Your task to perform on an android device: turn off priority inbox in the gmail app Image 0: 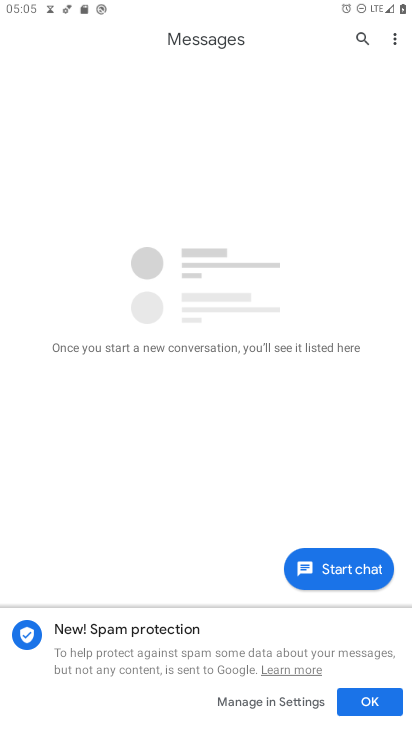
Step 0: press home button
Your task to perform on an android device: turn off priority inbox in the gmail app Image 1: 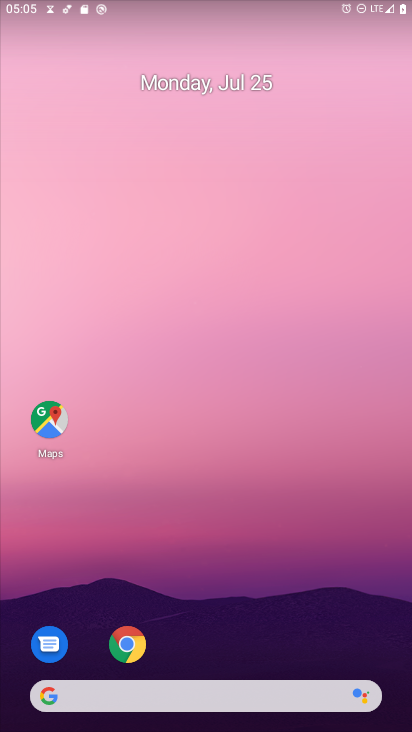
Step 1: drag from (274, 635) to (288, 15)
Your task to perform on an android device: turn off priority inbox in the gmail app Image 2: 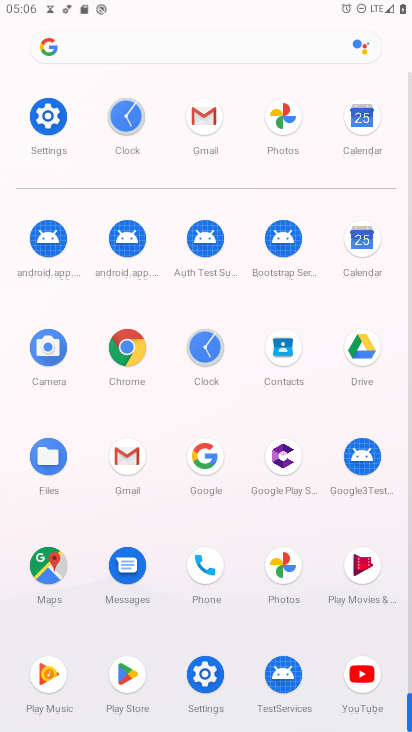
Step 2: click (200, 112)
Your task to perform on an android device: turn off priority inbox in the gmail app Image 3: 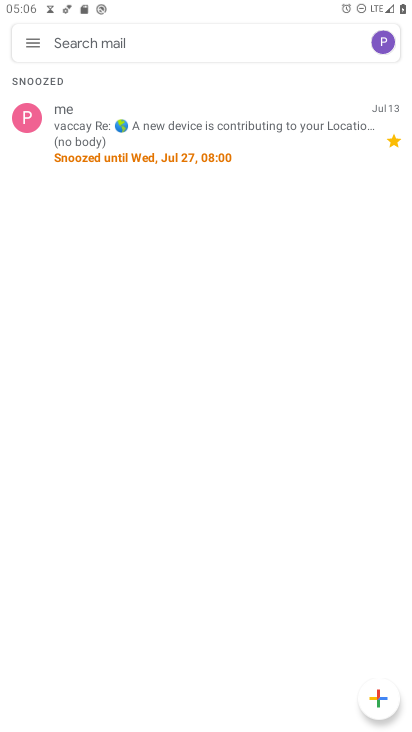
Step 3: click (29, 39)
Your task to perform on an android device: turn off priority inbox in the gmail app Image 4: 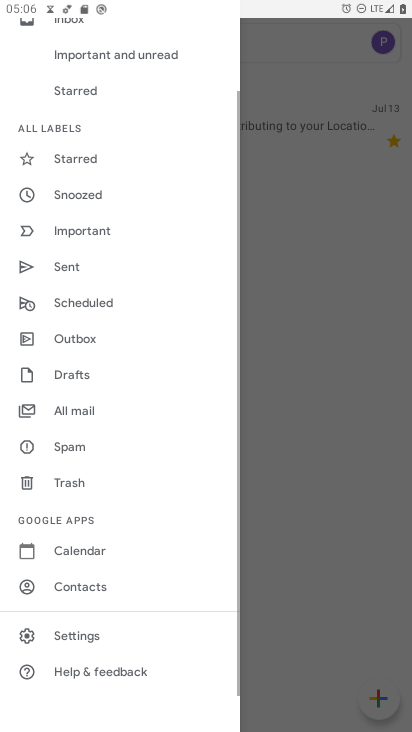
Step 4: click (42, 633)
Your task to perform on an android device: turn off priority inbox in the gmail app Image 5: 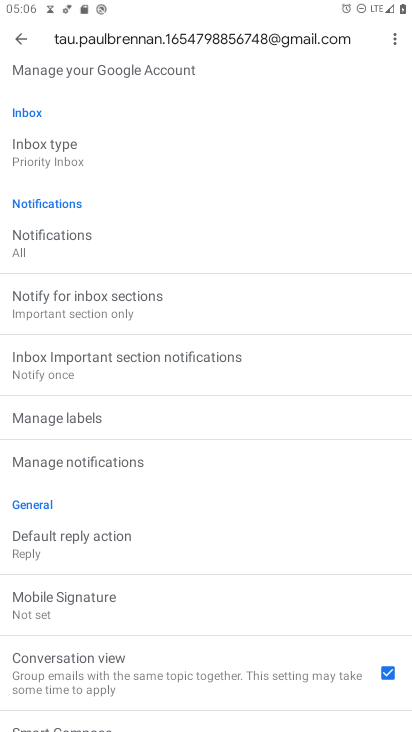
Step 5: click (52, 152)
Your task to perform on an android device: turn off priority inbox in the gmail app Image 6: 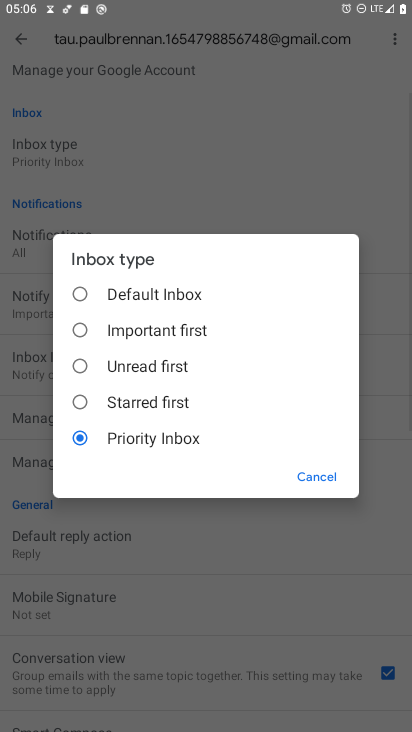
Step 6: click (80, 292)
Your task to perform on an android device: turn off priority inbox in the gmail app Image 7: 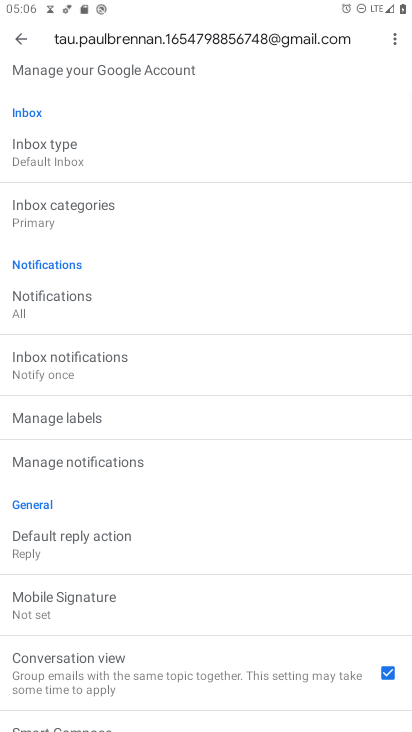
Step 7: task complete